Your task to perform on an android device: turn on priority inbox in the gmail app Image 0: 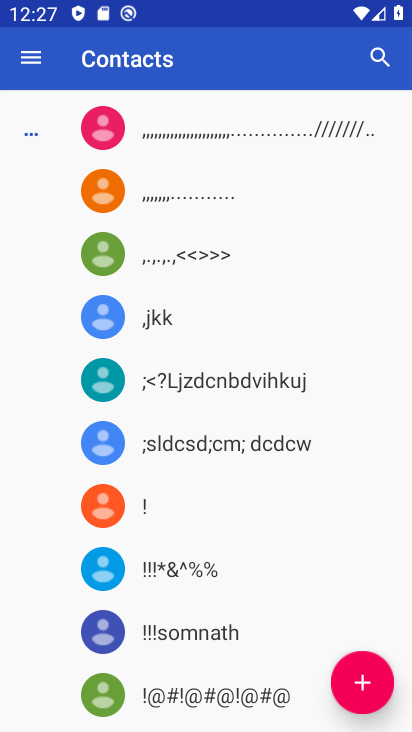
Step 0: press home button
Your task to perform on an android device: turn on priority inbox in the gmail app Image 1: 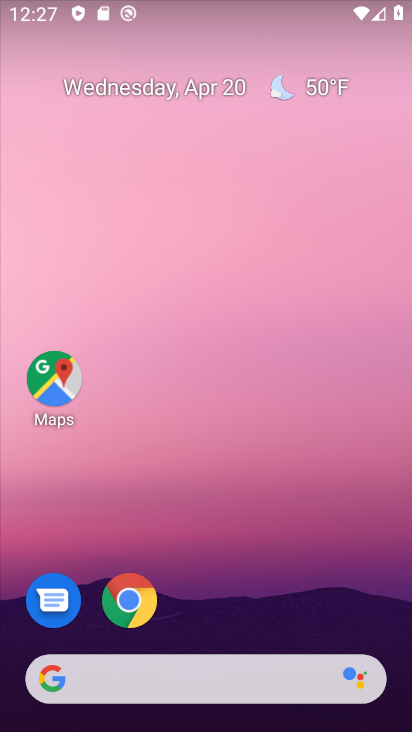
Step 1: drag from (254, 627) to (292, 143)
Your task to perform on an android device: turn on priority inbox in the gmail app Image 2: 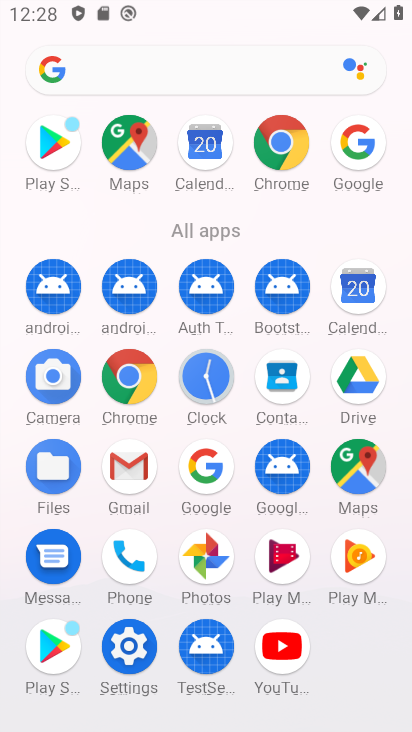
Step 2: click (132, 469)
Your task to perform on an android device: turn on priority inbox in the gmail app Image 3: 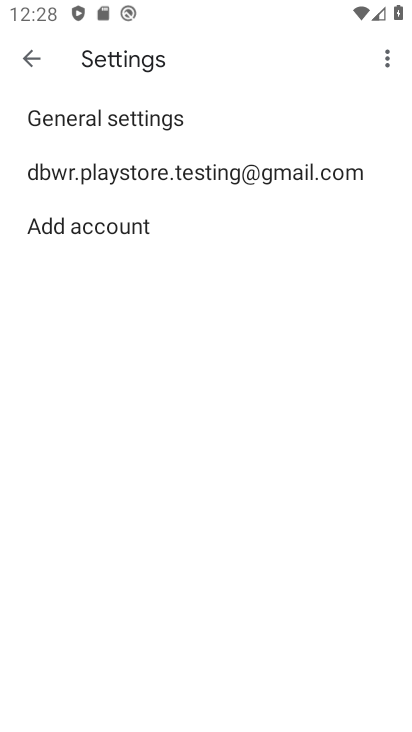
Step 3: click (213, 175)
Your task to perform on an android device: turn on priority inbox in the gmail app Image 4: 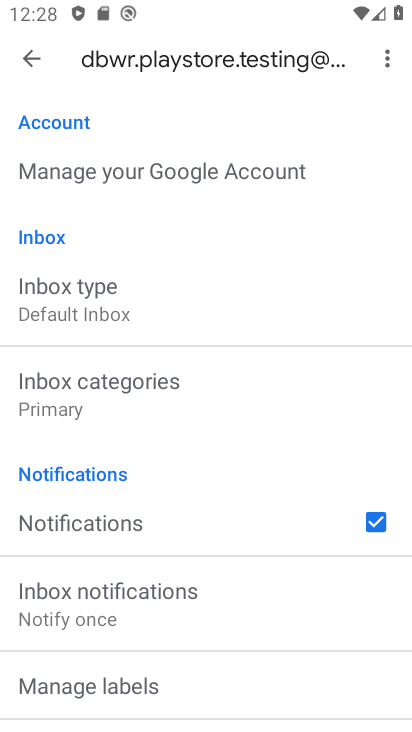
Step 4: drag from (144, 525) to (200, 373)
Your task to perform on an android device: turn on priority inbox in the gmail app Image 5: 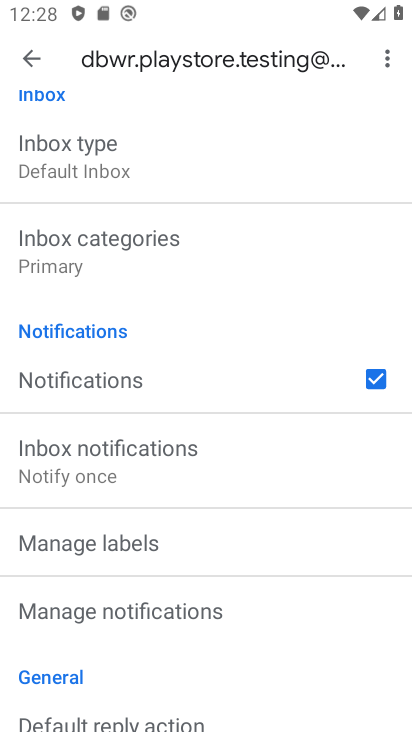
Step 5: click (131, 181)
Your task to perform on an android device: turn on priority inbox in the gmail app Image 6: 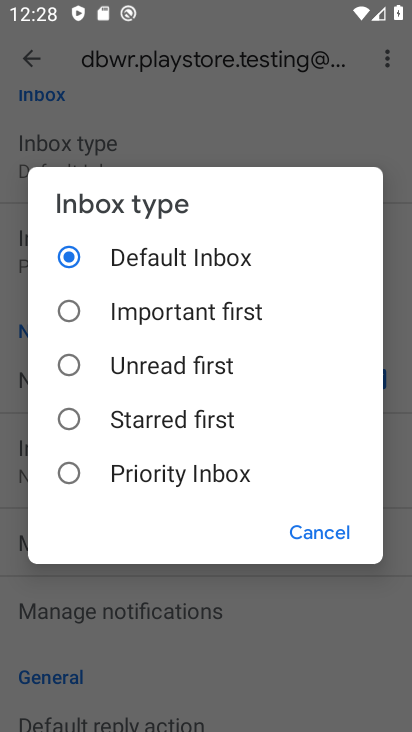
Step 6: click (115, 477)
Your task to perform on an android device: turn on priority inbox in the gmail app Image 7: 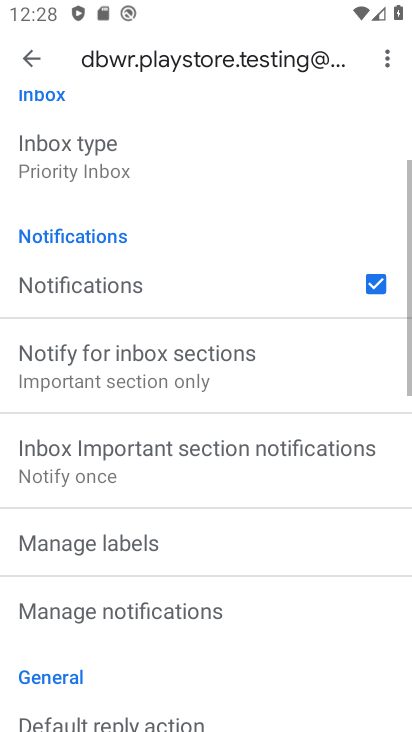
Step 7: task complete